Your task to perform on an android device: Open the phone app and click the voicemail tab. Image 0: 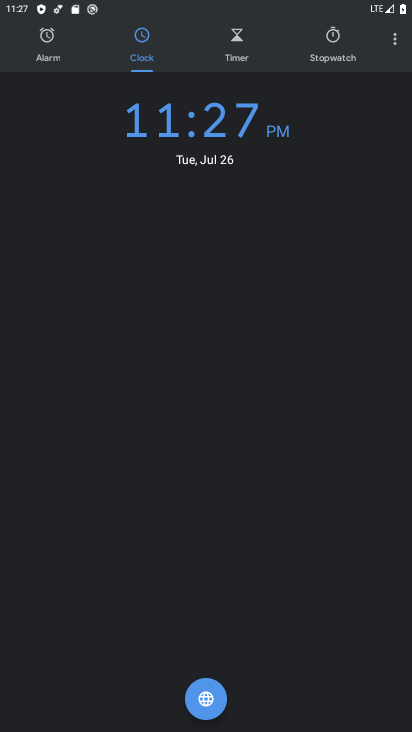
Step 0: press home button
Your task to perform on an android device: Open the phone app and click the voicemail tab. Image 1: 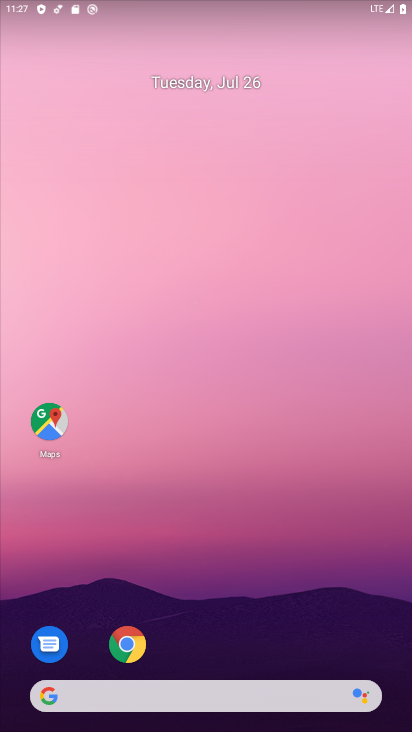
Step 1: drag from (215, 640) to (193, 90)
Your task to perform on an android device: Open the phone app and click the voicemail tab. Image 2: 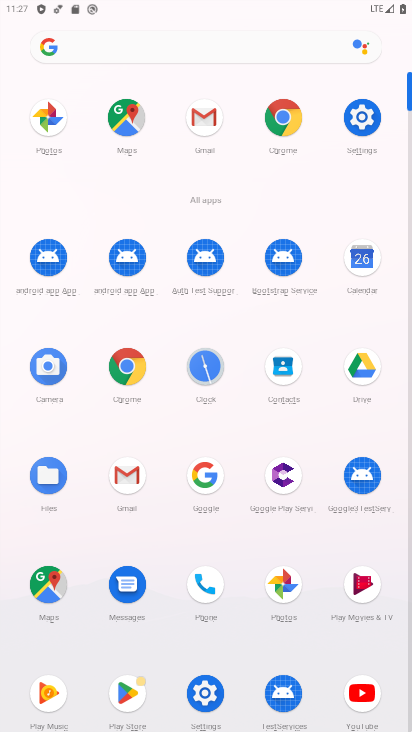
Step 2: click (212, 578)
Your task to perform on an android device: Open the phone app and click the voicemail tab. Image 3: 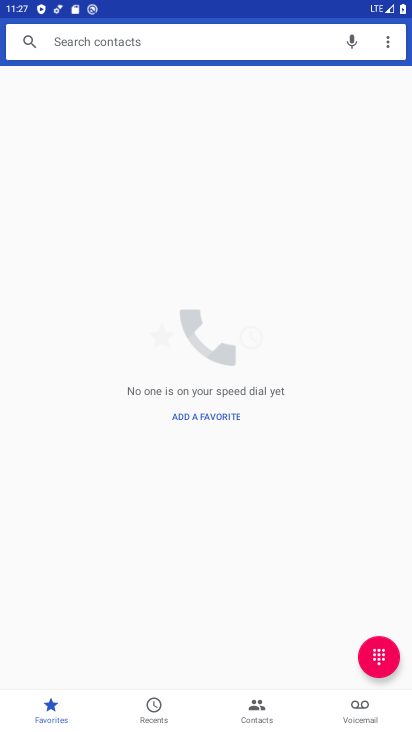
Step 3: click (352, 714)
Your task to perform on an android device: Open the phone app and click the voicemail tab. Image 4: 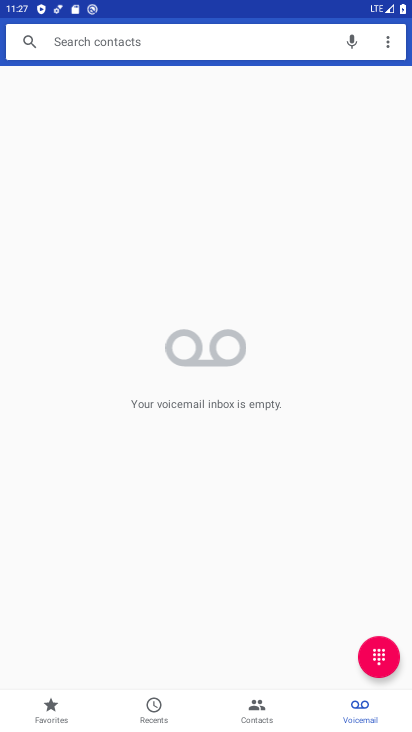
Step 4: task complete